Your task to perform on an android device: Open Chrome and go to the settings page Image 0: 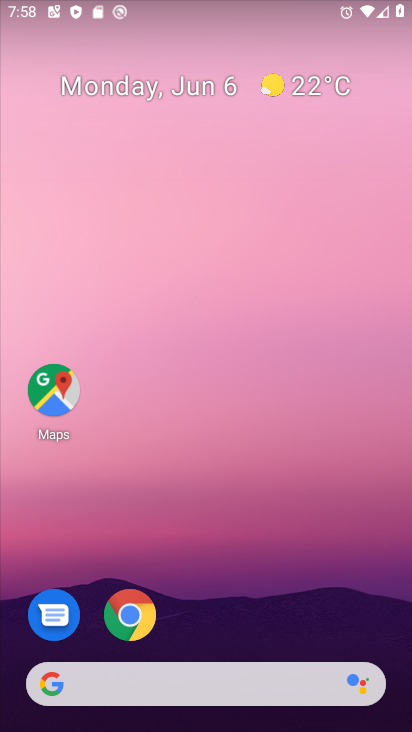
Step 0: click (140, 616)
Your task to perform on an android device: Open Chrome and go to the settings page Image 1: 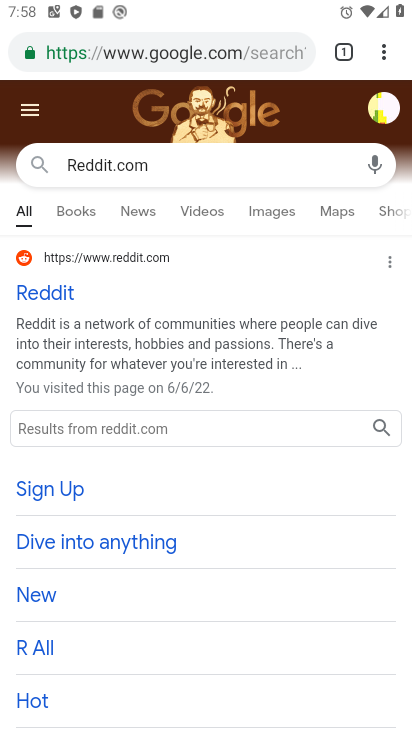
Step 1: click (385, 38)
Your task to perform on an android device: Open Chrome and go to the settings page Image 2: 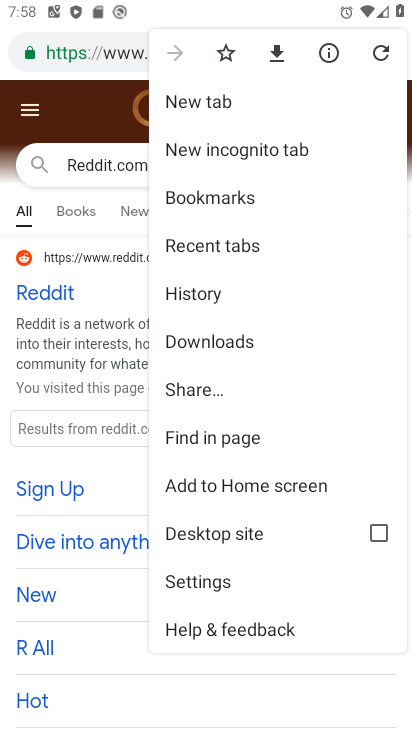
Step 2: click (194, 573)
Your task to perform on an android device: Open Chrome and go to the settings page Image 3: 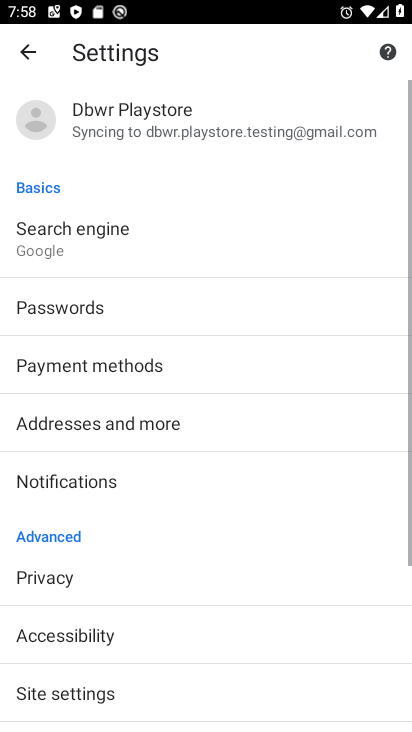
Step 3: task complete